Your task to perform on an android device: open a bookmark in the chrome app Image 0: 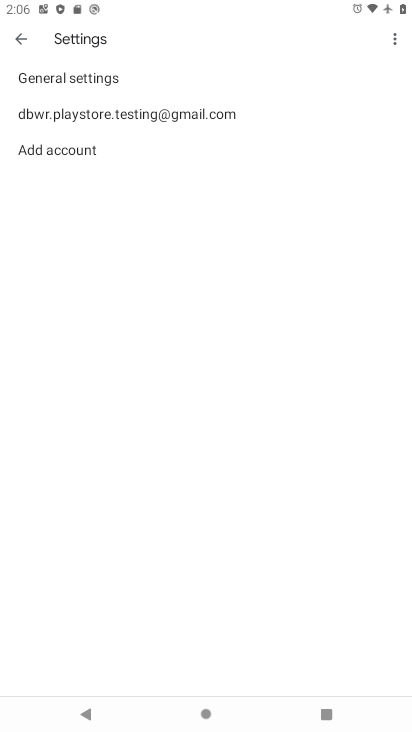
Step 0: press home button
Your task to perform on an android device: open a bookmark in the chrome app Image 1: 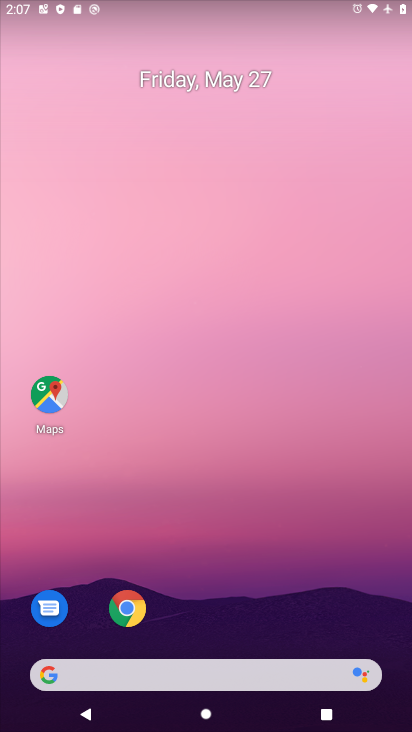
Step 1: click (123, 609)
Your task to perform on an android device: open a bookmark in the chrome app Image 2: 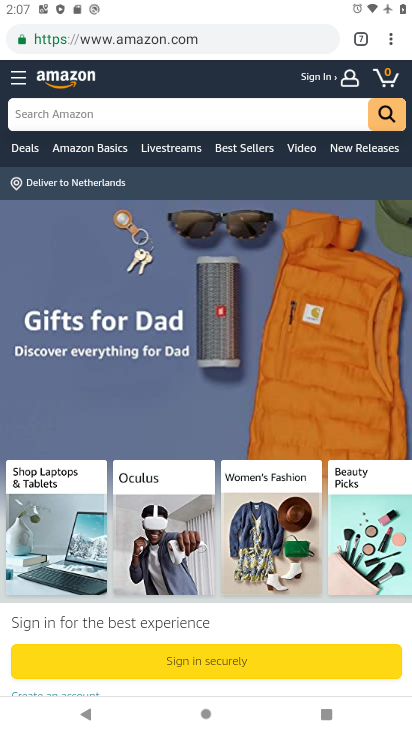
Step 2: task complete